Your task to perform on an android device: Go to notification settings Image 0: 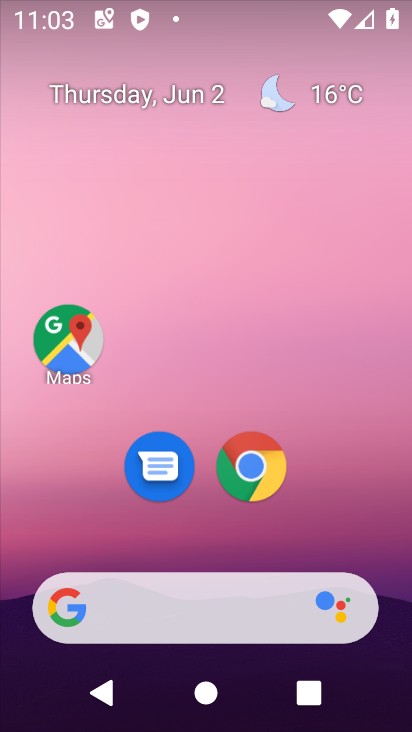
Step 0: drag from (178, 560) to (189, 199)
Your task to perform on an android device: Go to notification settings Image 1: 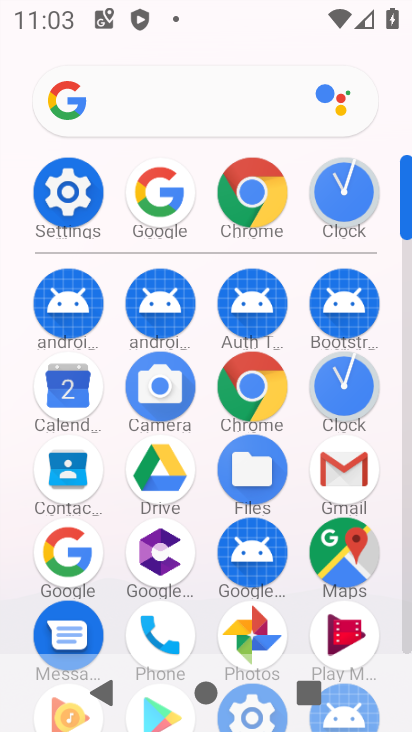
Step 1: click (87, 191)
Your task to perform on an android device: Go to notification settings Image 2: 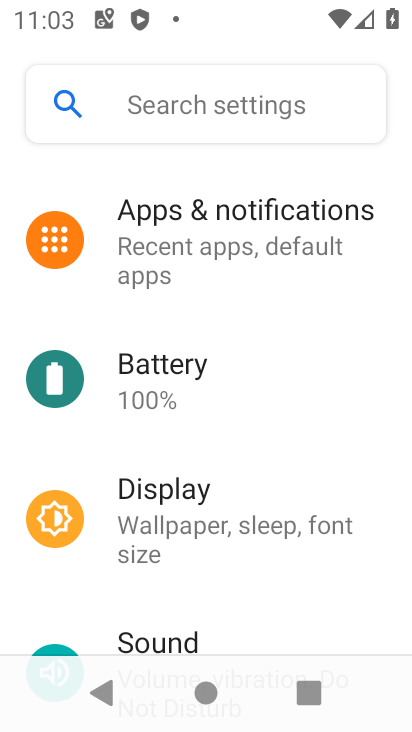
Step 2: click (222, 242)
Your task to perform on an android device: Go to notification settings Image 3: 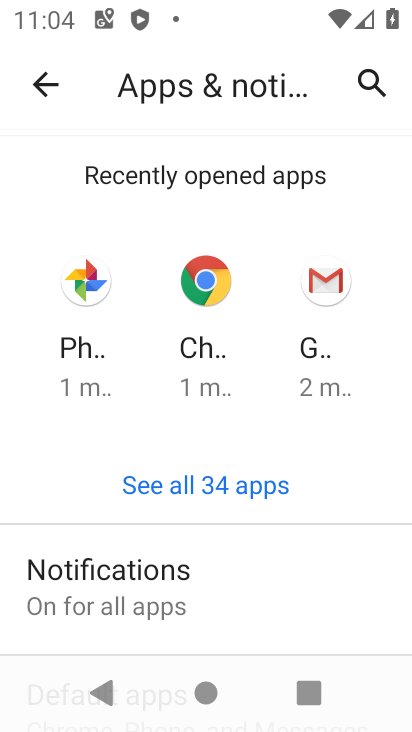
Step 3: click (146, 608)
Your task to perform on an android device: Go to notification settings Image 4: 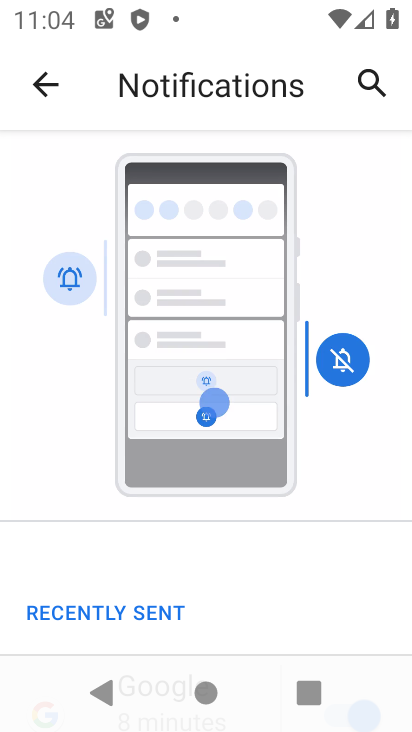
Step 4: task complete